Your task to perform on an android device: Open calendar and show me the fourth week of next month Image 0: 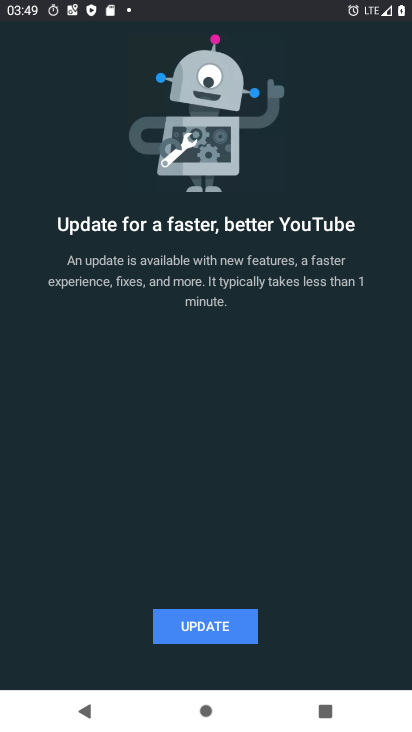
Step 0: press home button
Your task to perform on an android device: Open calendar and show me the fourth week of next month Image 1: 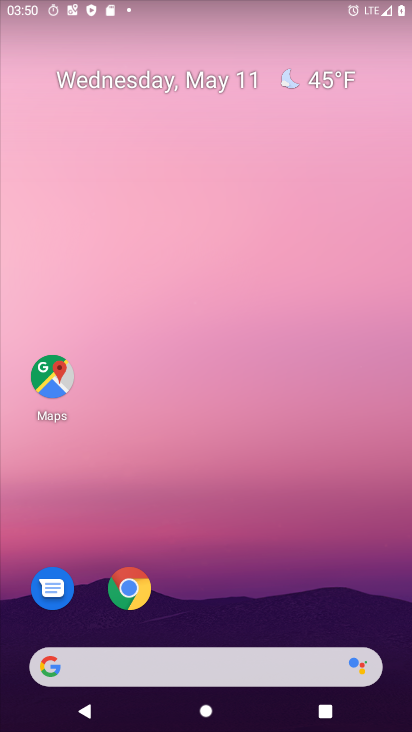
Step 1: drag from (212, 611) to (231, 226)
Your task to perform on an android device: Open calendar and show me the fourth week of next month Image 2: 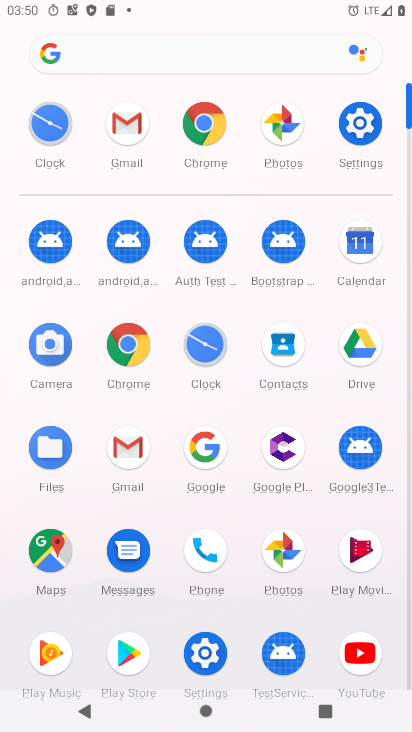
Step 2: click (355, 262)
Your task to perform on an android device: Open calendar and show me the fourth week of next month Image 3: 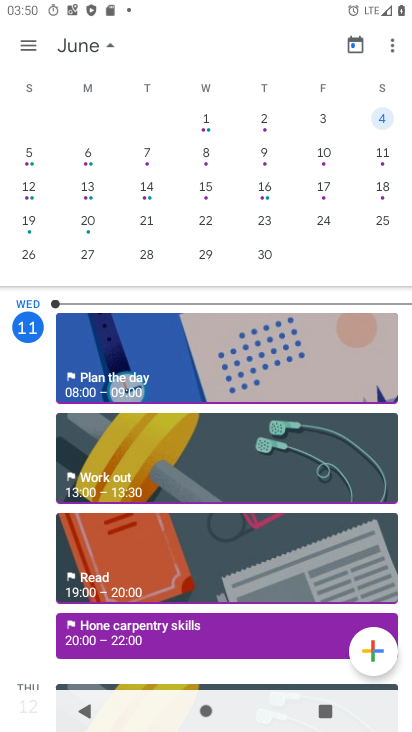
Step 3: click (30, 218)
Your task to perform on an android device: Open calendar and show me the fourth week of next month Image 4: 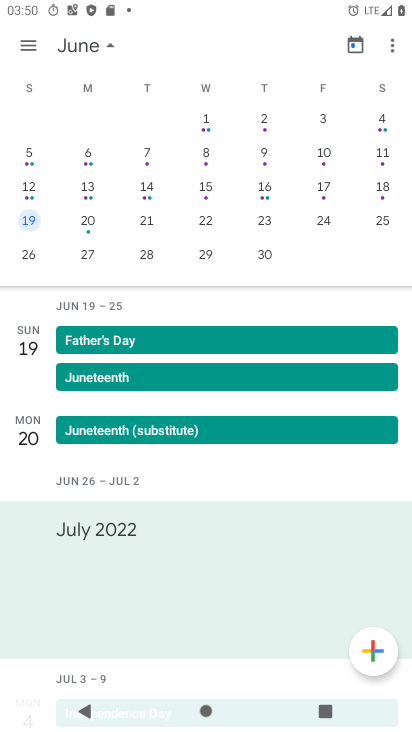
Step 4: task complete